Your task to perform on an android device: turn smart compose on in the gmail app Image 0: 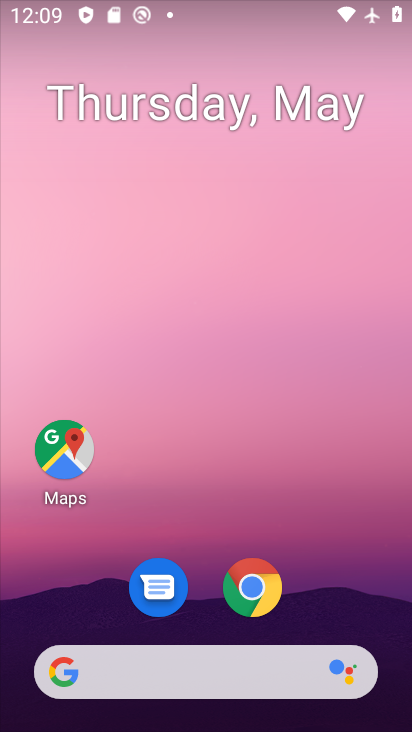
Step 0: drag from (225, 507) to (332, 1)
Your task to perform on an android device: turn smart compose on in the gmail app Image 1: 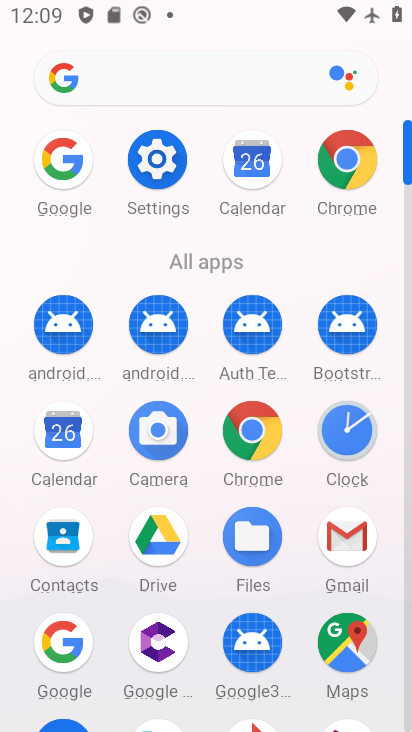
Step 1: click (351, 542)
Your task to perform on an android device: turn smart compose on in the gmail app Image 2: 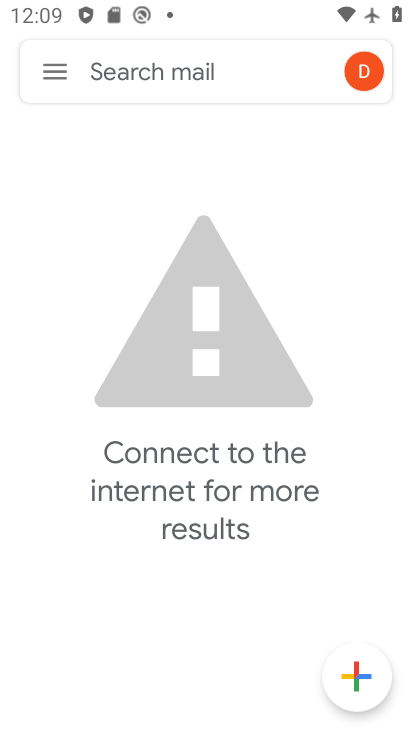
Step 2: click (57, 69)
Your task to perform on an android device: turn smart compose on in the gmail app Image 3: 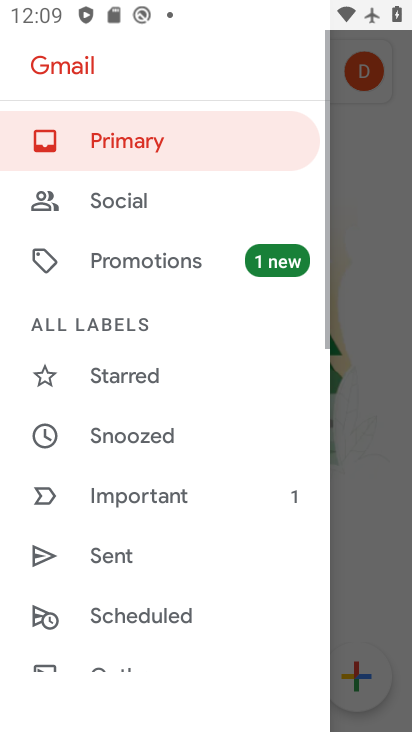
Step 3: drag from (232, 561) to (243, 101)
Your task to perform on an android device: turn smart compose on in the gmail app Image 4: 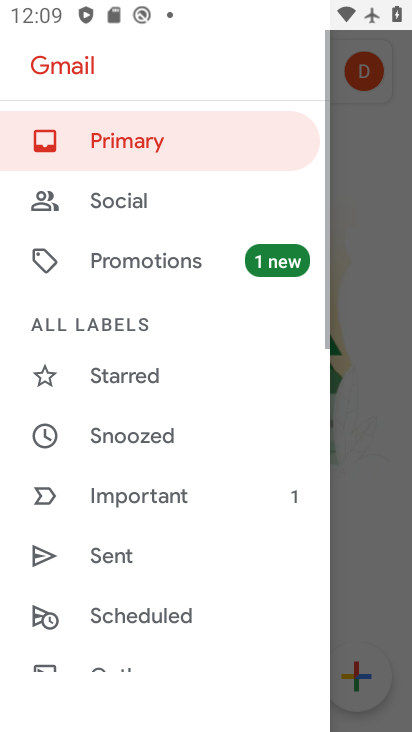
Step 4: drag from (181, 530) to (217, 134)
Your task to perform on an android device: turn smart compose on in the gmail app Image 5: 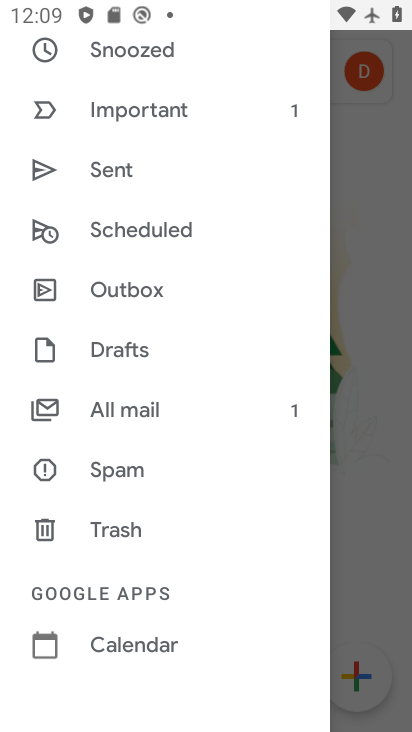
Step 5: drag from (150, 613) to (195, 379)
Your task to perform on an android device: turn smart compose on in the gmail app Image 6: 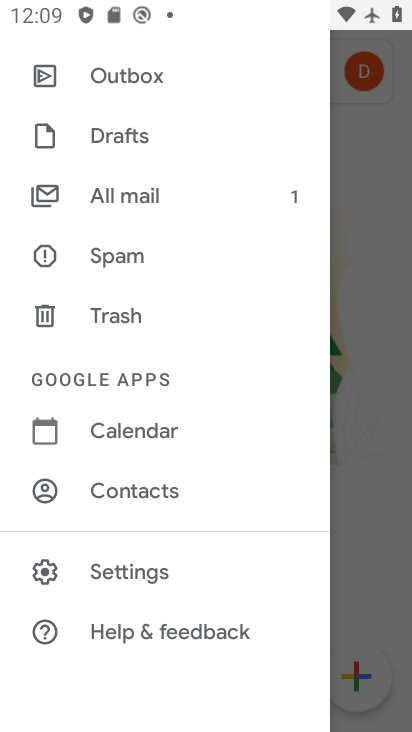
Step 6: click (185, 578)
Your task to perform on an android device: turn smart compose on in the gmail app Image 7: 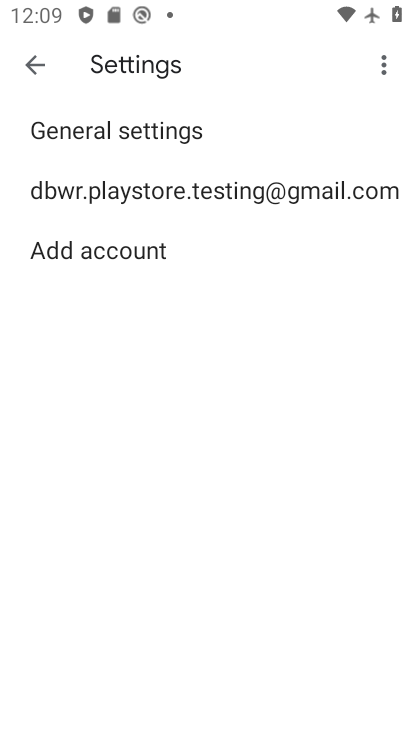
Step 7: click (234, 192)
Your task to perform on an android device: turn smart compose on in the gmail app Image 8: 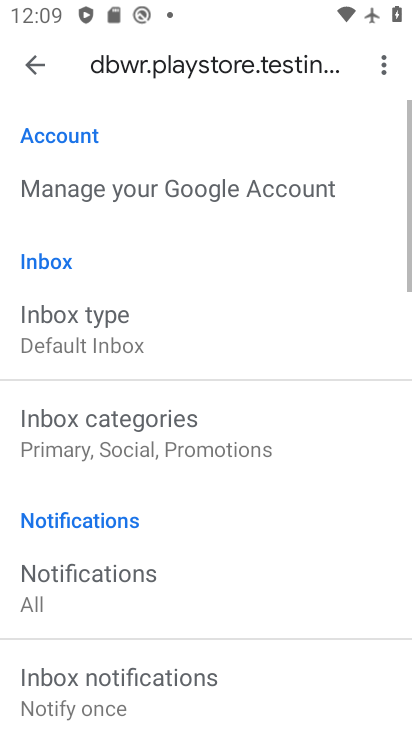
Step 8: task complete